Your task to perform on an android device: check google app version Image 0: 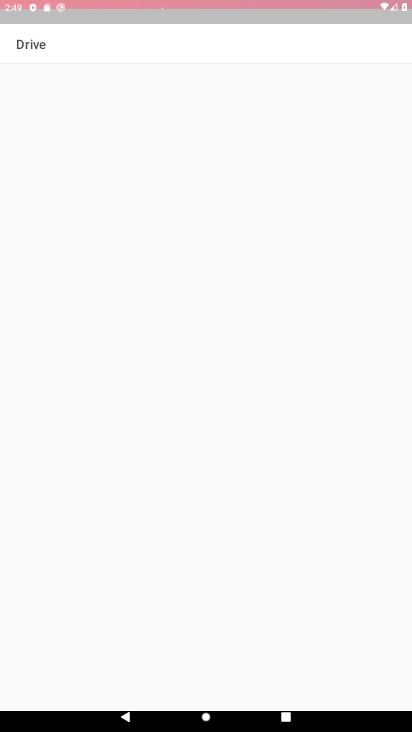
Step 0: press home button
Your task to perform on an android device: check google app version Image 1: 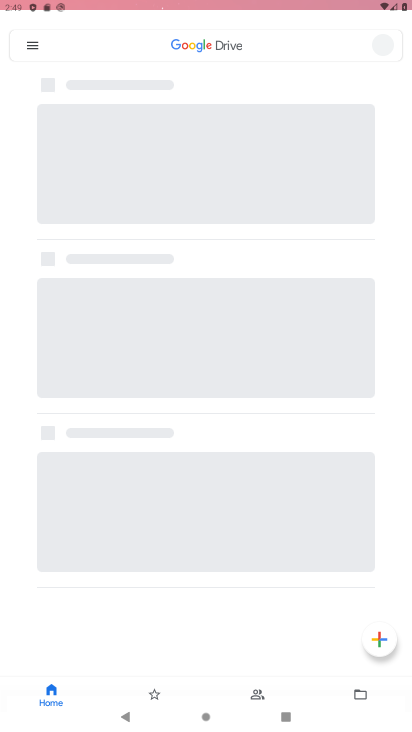
Step 1: press home button
Your task to perform on an android device: check google app version Image 2: 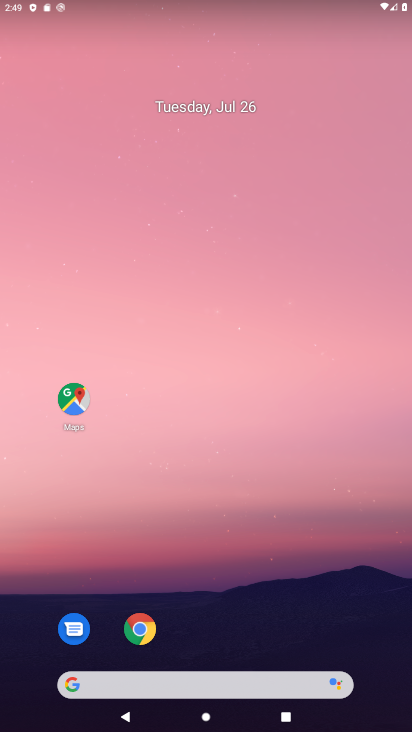
Step 2: drag from (233, 699) to (228, 90)
Your task to perform on an android device: check google app version Image 3: 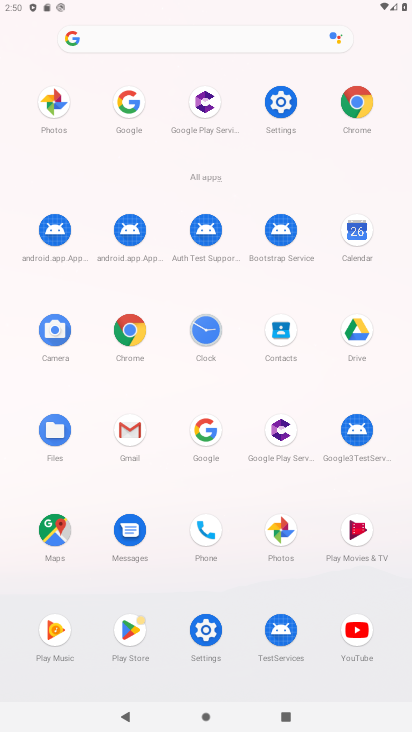
Step 3: click (200, 426)
Your task to perform on an android device: check google app version Image 4: 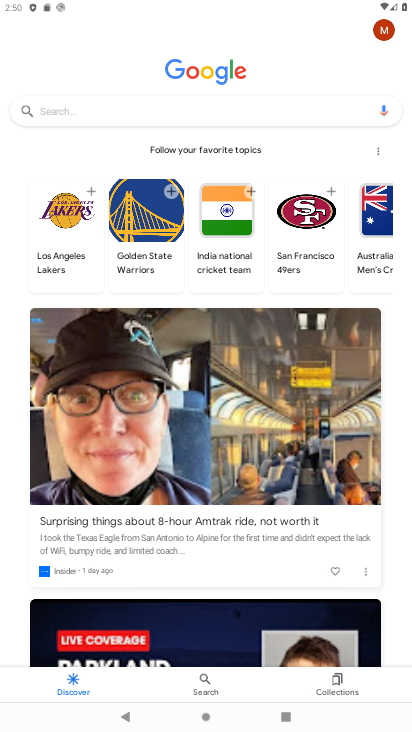
Step 4: click (379, 33)
Your task to perform on an android device: check google app version Image 5: 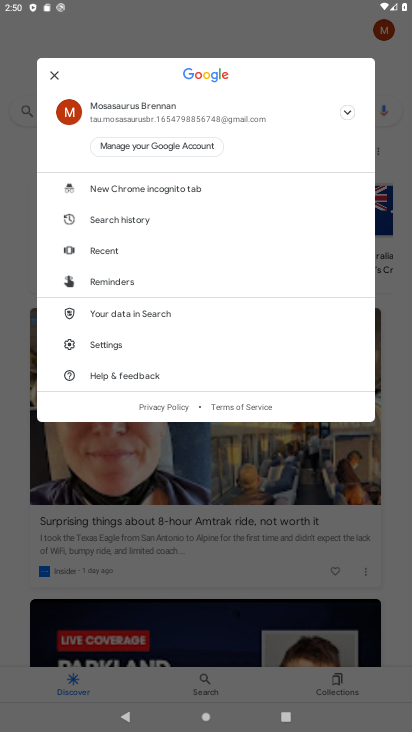
Step 5: click (100, 336)
Your task to perform on an android device: check google app version Image 6: 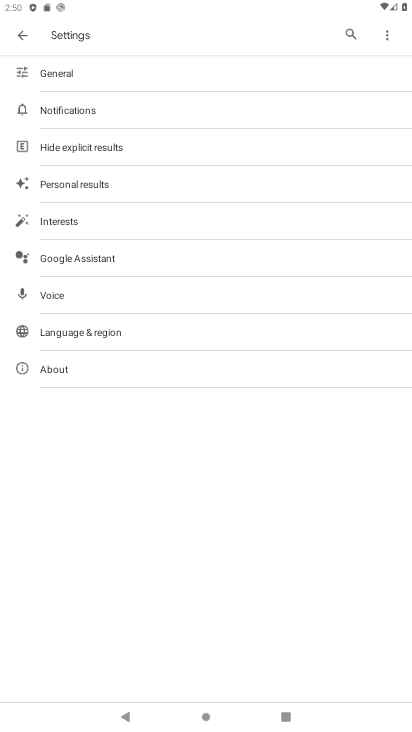
Step 6: click (76, 365)
Your task to perform on an android device: check google app version Image 7: 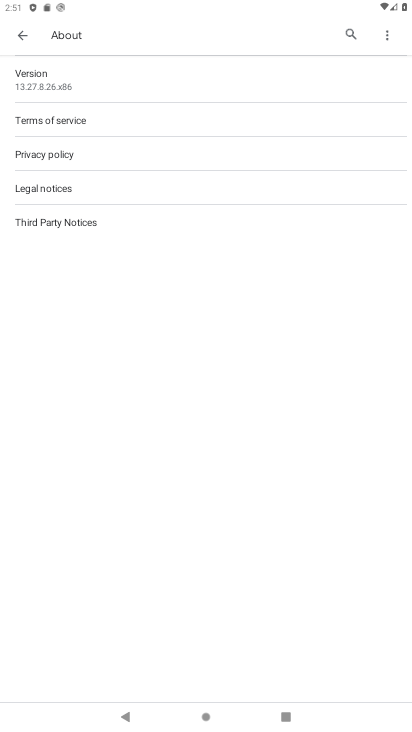
Step 7: task complete